Your task to perform on an android device: turn on location history Image 0: 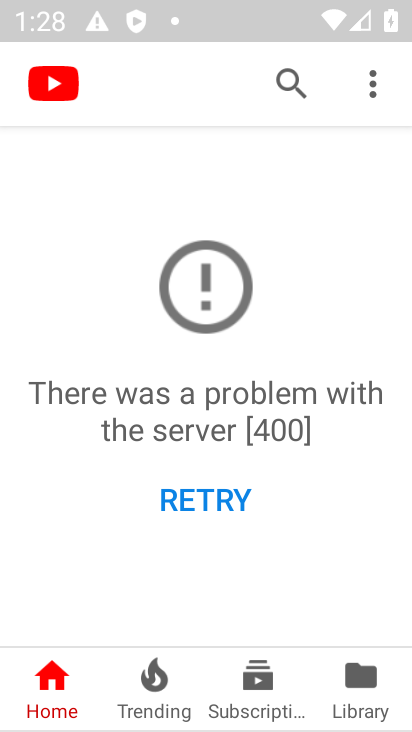
Step 0: press home button
Your task to perform on an android device: turn on location history Image 1: 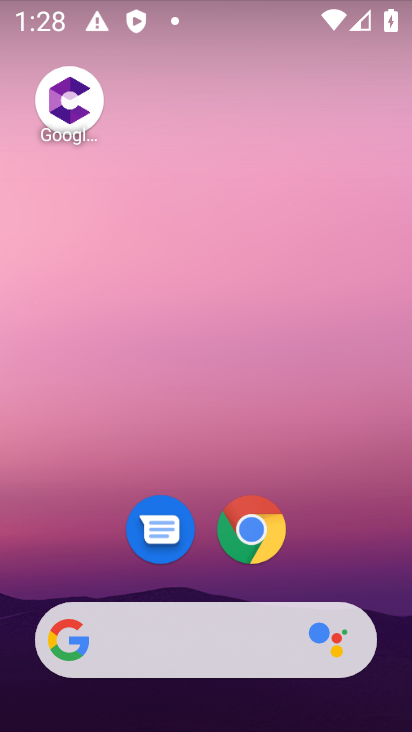
Step 1: drag from (385, 574) to (245, 59)
Your task to perform on an android device: turn on location history Image 2: 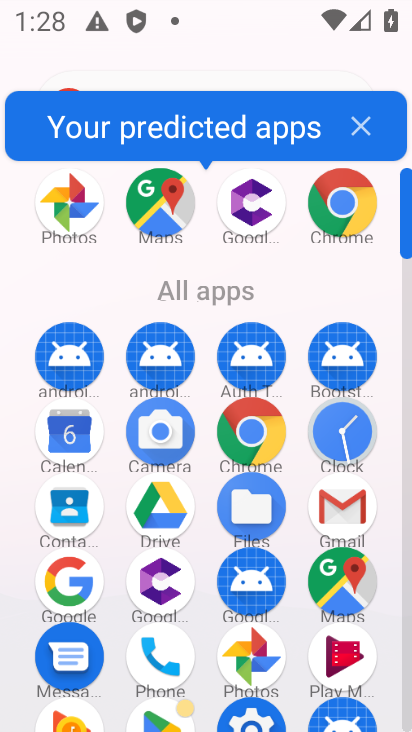
Step 2: click (166, 213)
Your task to perform on an android device: turn on location history Image 3: 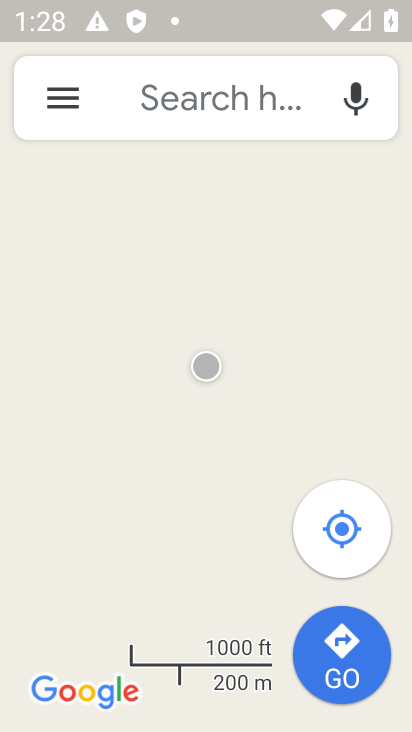
Step 3: click (68, 99)
Your task to perform on an android device: turn on location history Image 4: 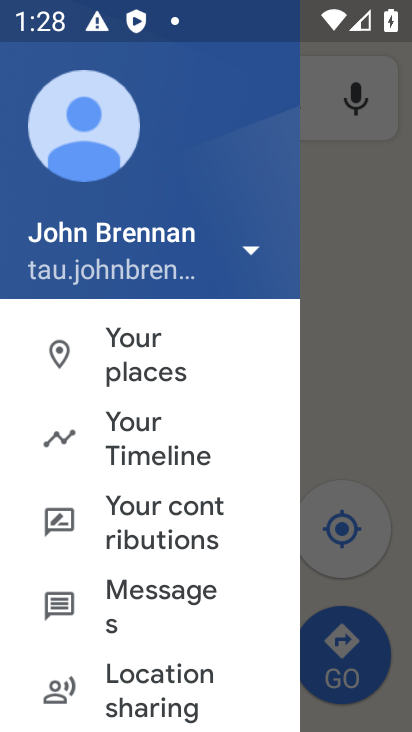
Step 4: click (131, 437)
Your task to perform on an android device: turn on location history Image 5: 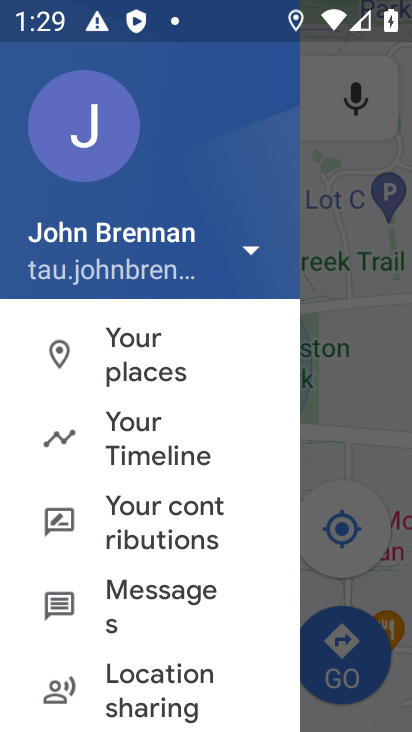
Step 5: click (170, 435)
Your task to perform on an android device: turn on location history Image 6: 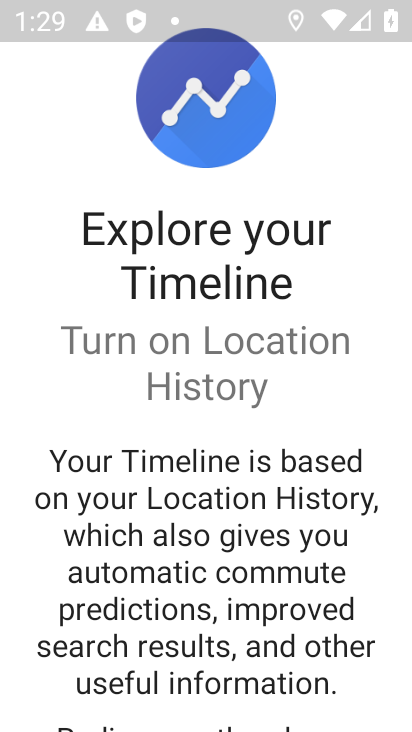
Step 6: drag from (321, 631) to (259, 273)
Your task to perform on an android device: turn on location history Image 7: 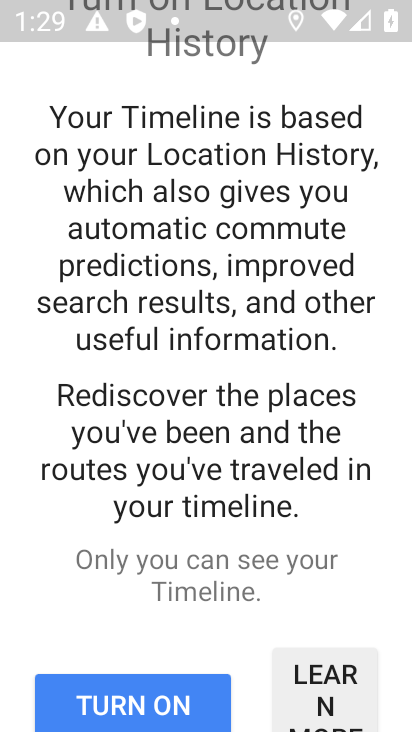
Step 7: drag from (226, 600) to (163, 330)
Your task to perform on an android device: turn on location history Image 8: 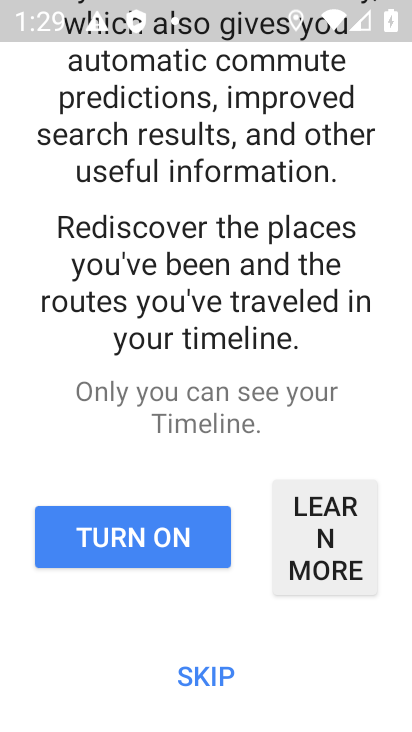
Step 8: click (145, 526)
Your task to perform on an android device: turn on location history Image 9: 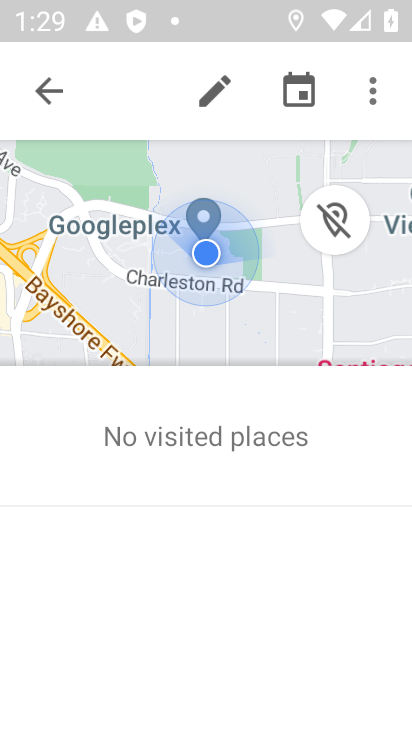
Step 9: task complete